Your task to perform on an android device: How much does a 2 bedroom apartment rent for in Portland? Image 0: 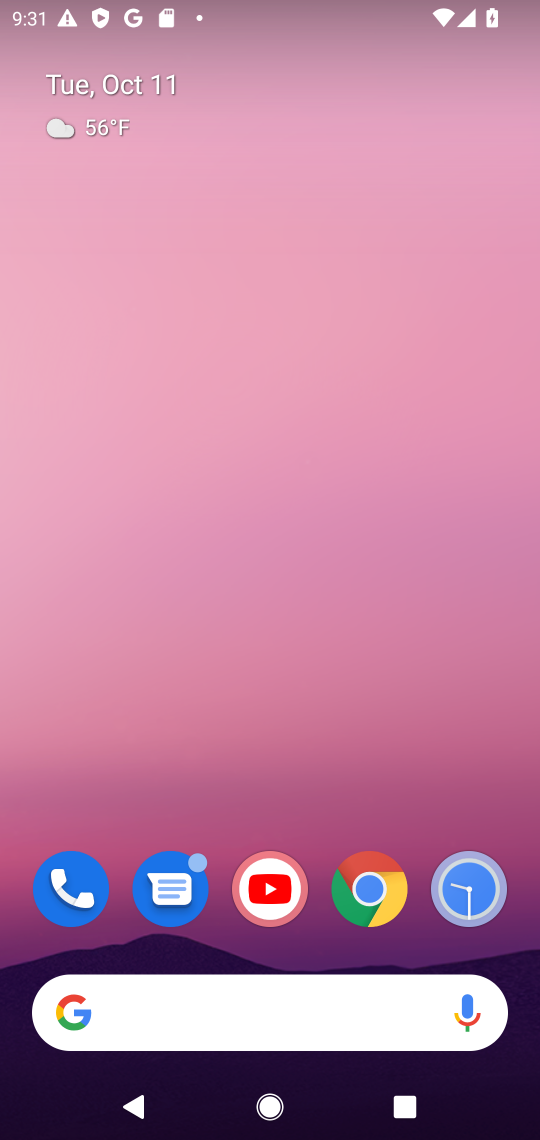
Step 0: click (280, 1016)
Your task to perform on an android device: How much does a 2 bedroom apartment rent for in Portland? Image 1: 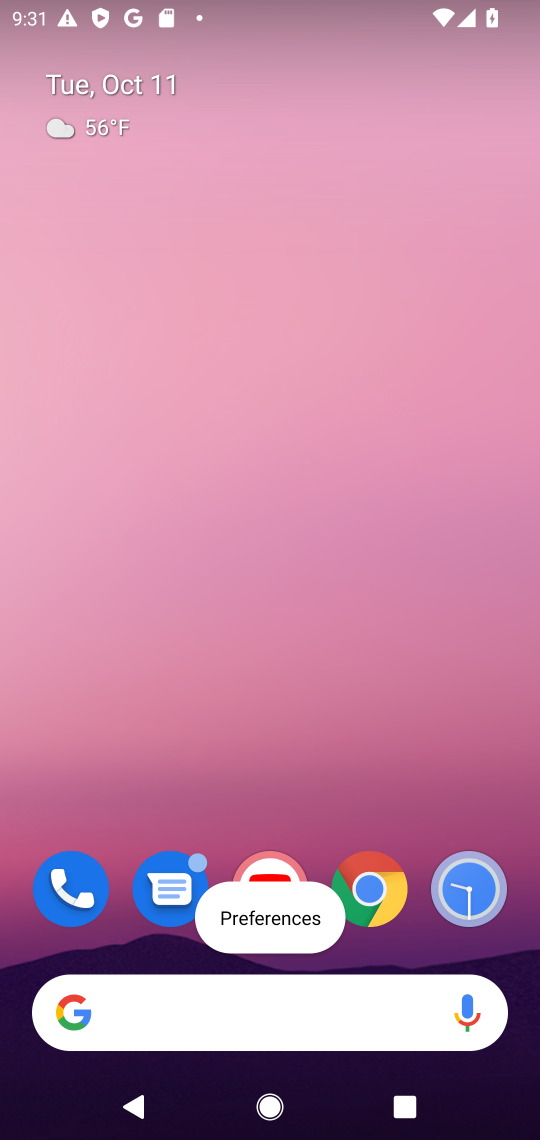
Step 1: click (226, 995)
Your task to perform on an android device: How much does a 2 bedroom apartment rent for in Portland? Image 2: 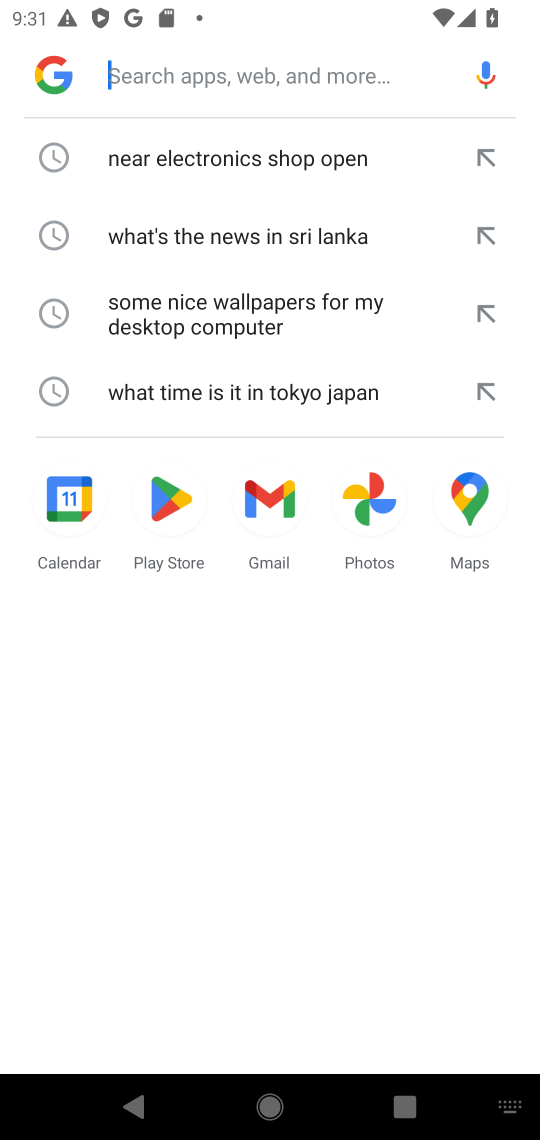
Step 2: click (162, 70)
Your task to perform on an android device: How much does a 2 bedroom apartment rent for in Portland? Image 3: 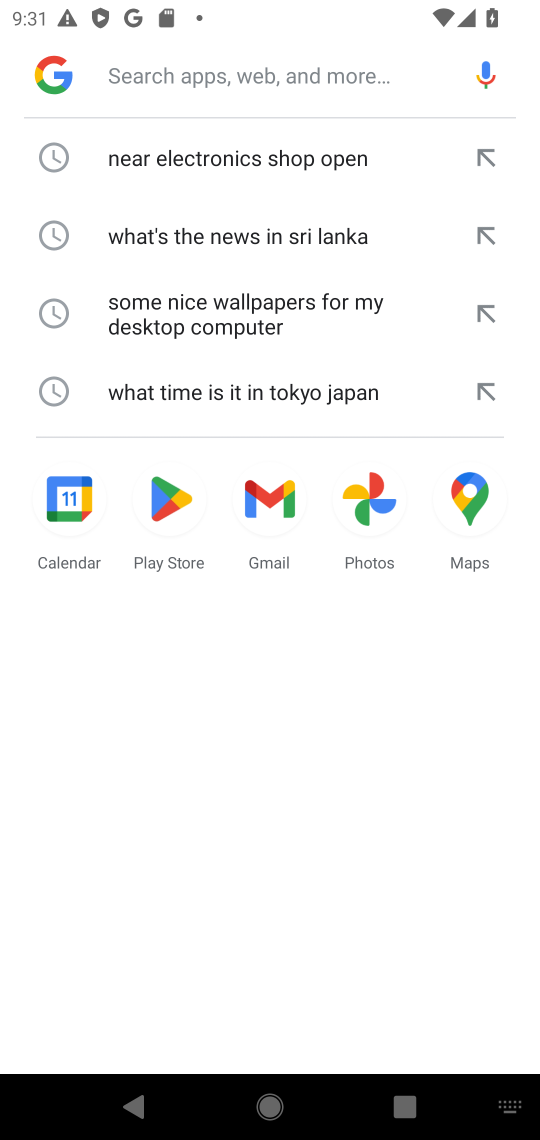
Step 3: click (121, 67)
Your task to perform on an android device: How much does a 2 bedroom apartment rent for in Portland? Image 4: 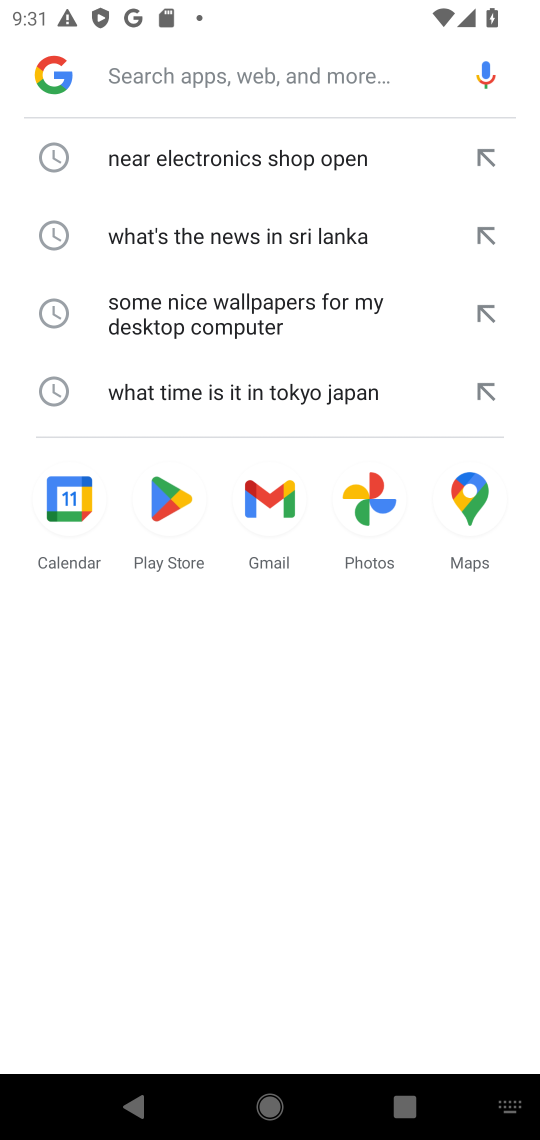
Step 4: type "How much does a 2 bedroom apartment rent for in Portland?"
Your task to perform on an android device: How much does a 2 bedroom apartment rent for in Portland? Image 5: 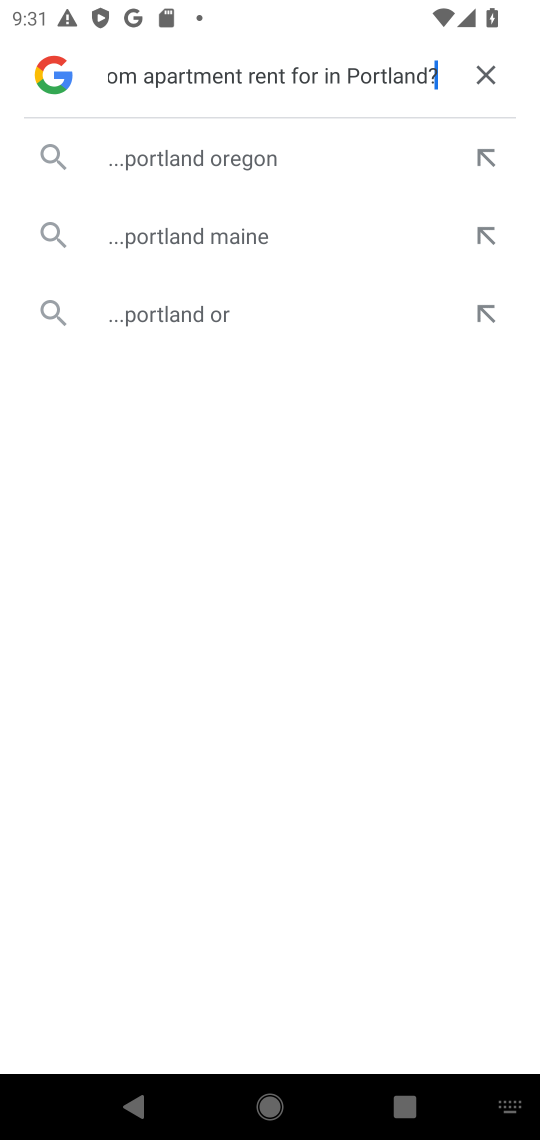
Step 5: click (207, 161)
Your task to perform on an android device: How much does a 2 bedroom apartment rent for in Portland? Image 6: 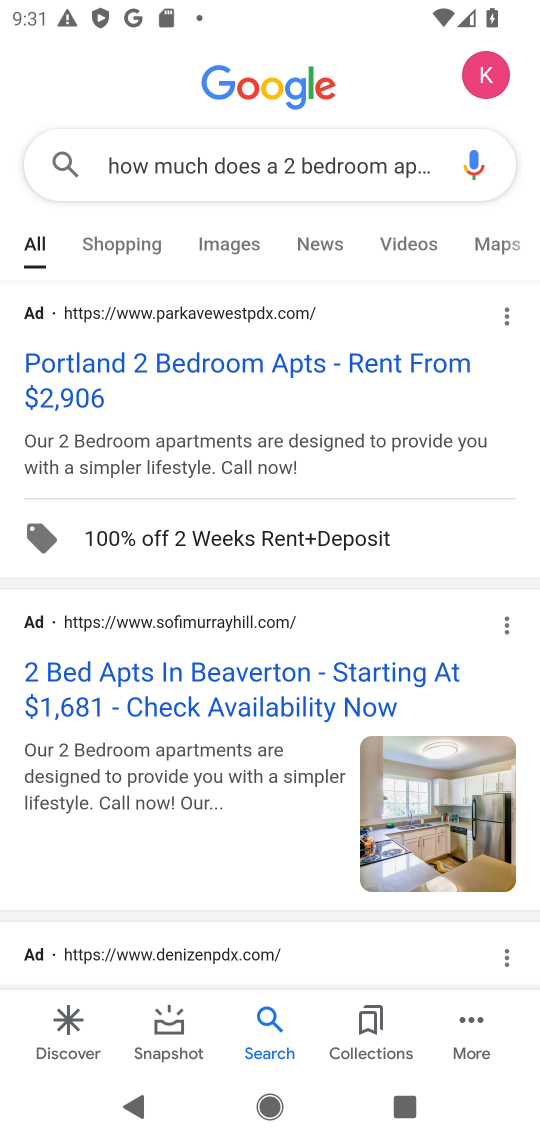
Step 6: task complete